Your task to perform on an android device: toggle priority inbox in the gmail app Image 0: 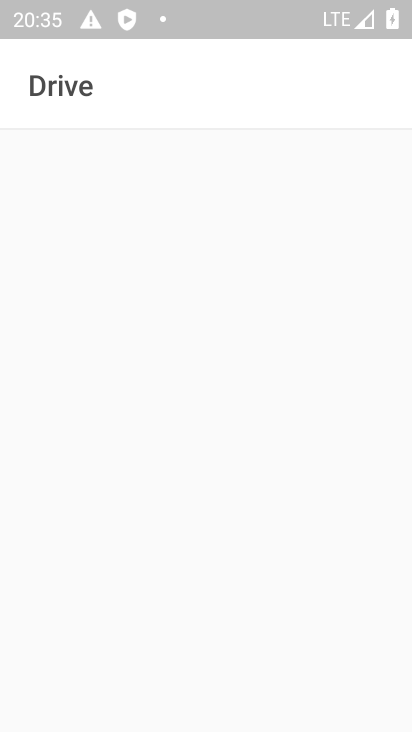
Step 0: press back button
Your task to perform on an android device: toggle priority inbox in the gmail app Image 1: 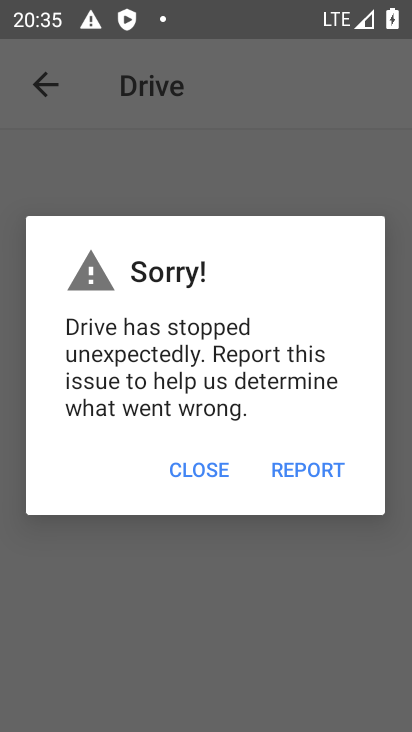
Step 1: press back button
Your task to perform on an android device: toggle priority inbox in the gmail app Image 2: 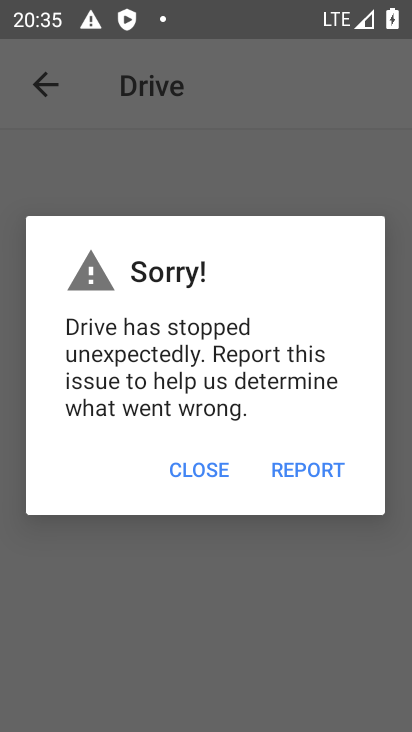
Step 2: press home button
Your task to perform on an android device: toggle priority inbox in the gmail app Image 3: 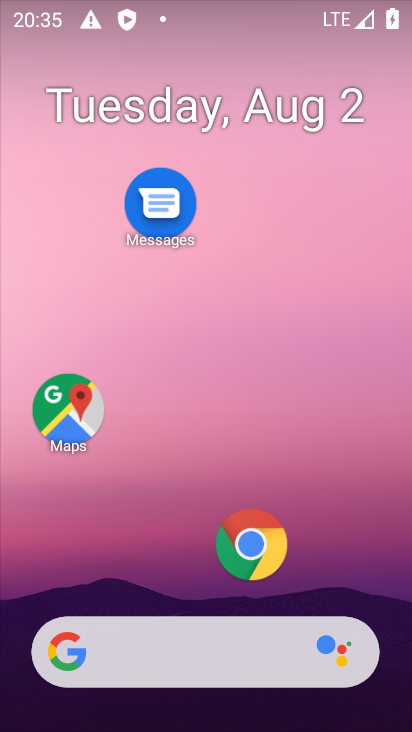
Step 3: drag from (169, 585) to (240, 56)
Your task to perform on an android device: toggle priority inbox in the gmail app Image 4: 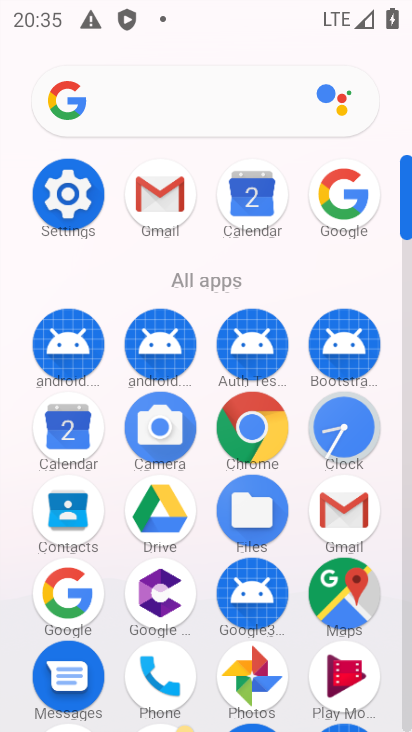
Step 4: click (179, 223)
Your task to perform on an android device: toggle priority inbox in the gmail app Image 5: 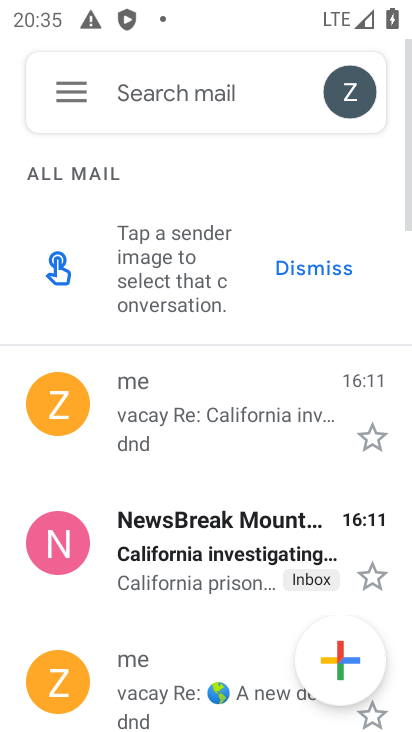
Step 5: click (74, 78)
Your task to perform on an android device: toggle priority inbox in the gmail app Image 6: 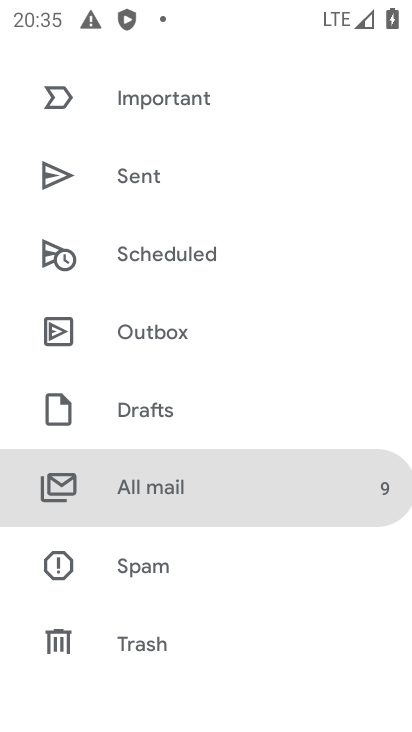
Step 6: drag from (130, 610) to (210, 299)
Your task to perform on an android device: toggle priority inbox in the gmail app Image 7: 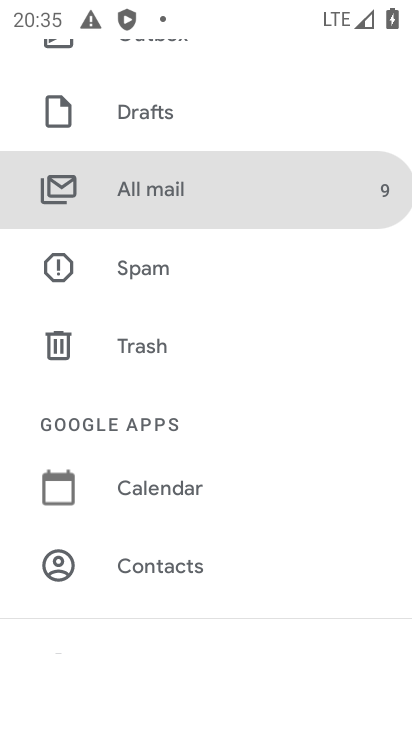
Step 7: drag from (223, 578) to (274, 232)
Your task to perform on an android device: toggle priority inbox in the gmail app Image 8: 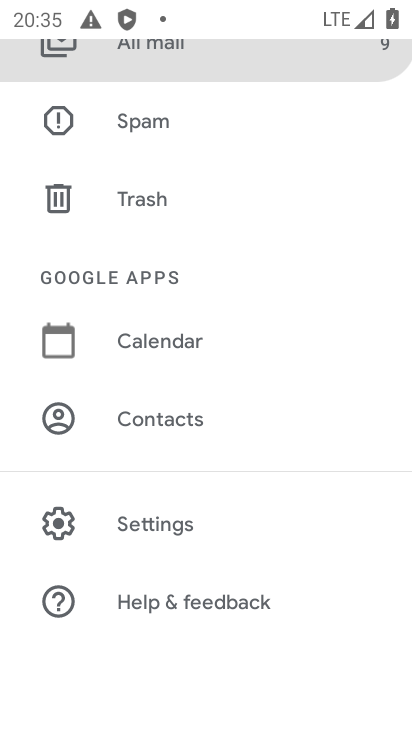
Step 8: click (155, 503)
Your task to perform on an android device: toggle priority inbox in the gmail app Image 9: 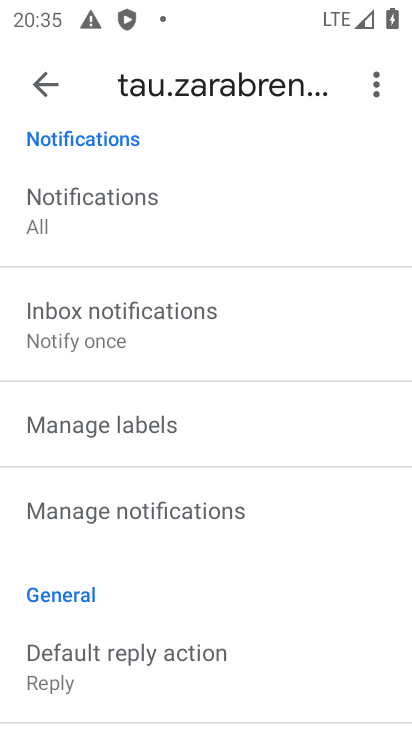
Step 9: drag from (193, 251) to (209, 665)
Your task to perform on an android device: toggle priority inbox in the gmail app Image 10: 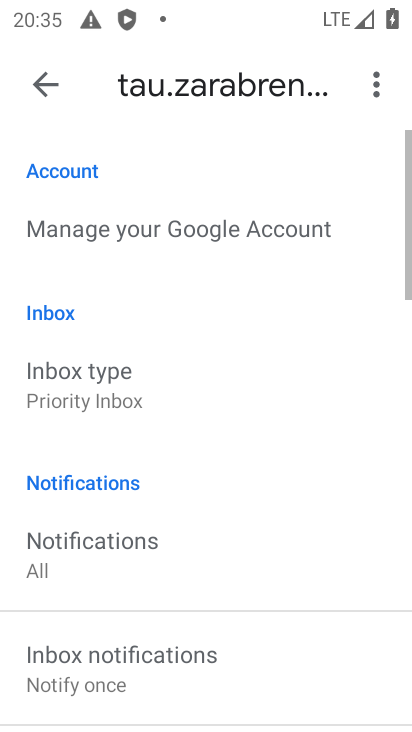
Step 10: click (163, 388)
Your task to perform on an android device: toggle priority inbox in the gmail app Image 11: 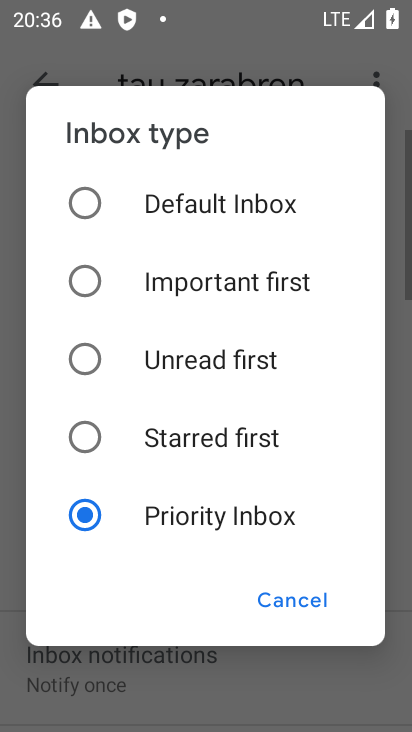
Step 11: click (154, 213)
Your task to perform on an android device: toggle priority inbox in the gmail app Image 12: 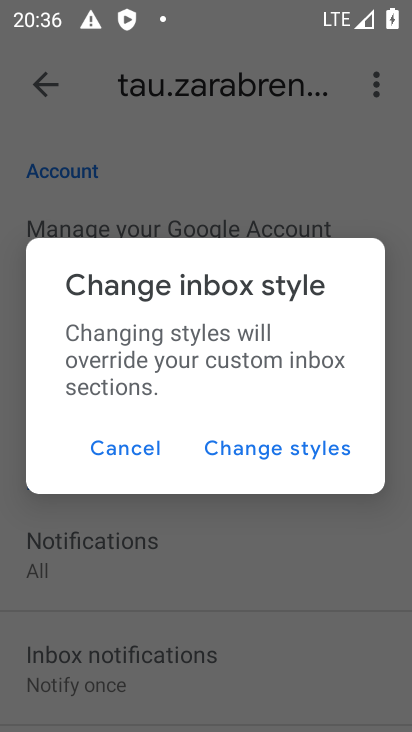
Step 12: click (286, 458)
Your task to perform on an android device: toggle priority inbox in the gmail app Image 13: 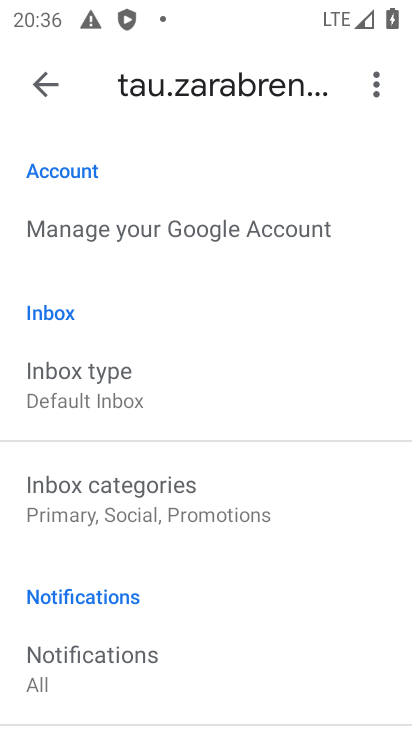
Step 13: task complete